Your task to perform on an android device: turn on data saver in the chrome app Image 0: 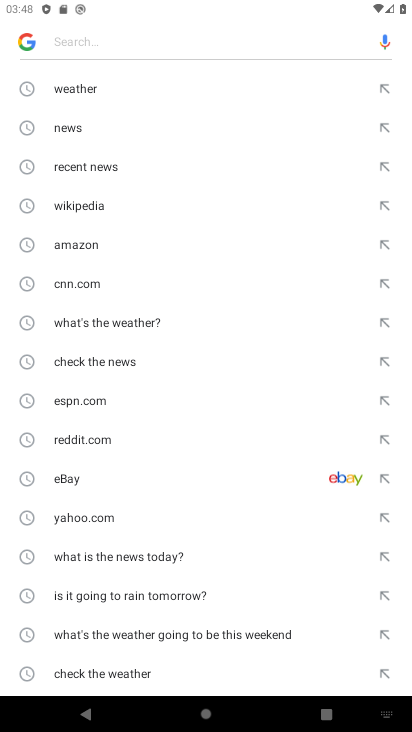
Step 0: press home button
Your task to perform on an android device: turn on data saver in the chrome app Image 1: 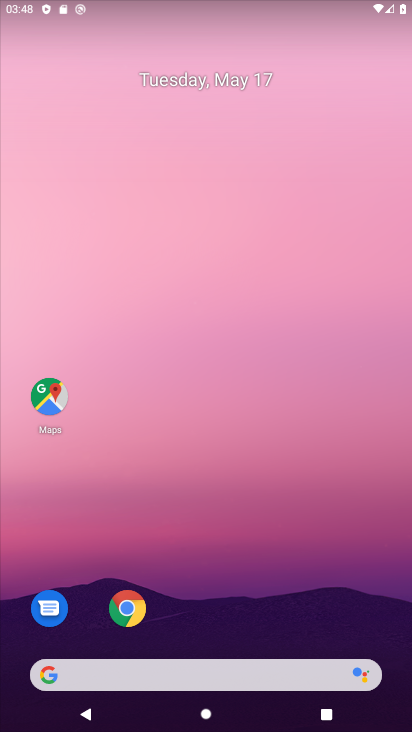
Step 1: click (131, 613)
Your task to perform on an android device: turn on data saver in the chrome app Image 2: 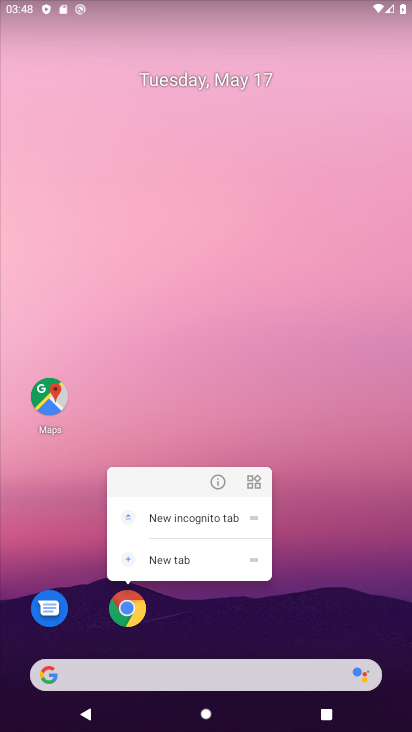
Step 2: click (129, 611)
Your task to perform on an android device: turn on data saver in the chrome app Image 3: 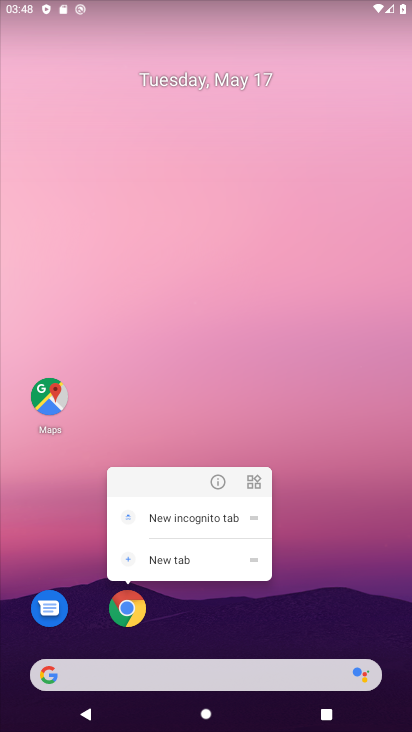
Step 3: click (128, 611)
Your task to perform on an android device: turn on data saver in the chrome app Image 4: 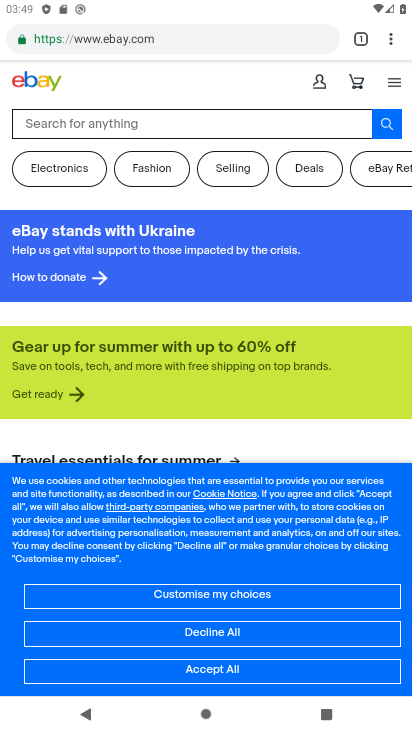
Step 4: click (390, 38)
Your task to perform on an android device: turn on data saver in the chrome app Image 5: 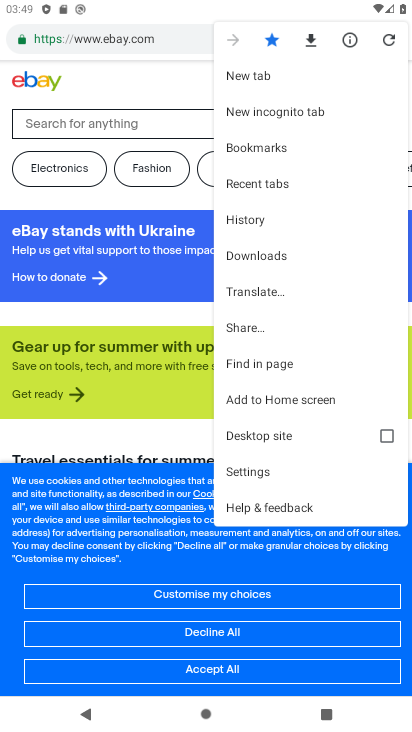
Step 5: click (260, 477)
Your task to perform on an android device: turn on data saver in the chrome app Image 6: 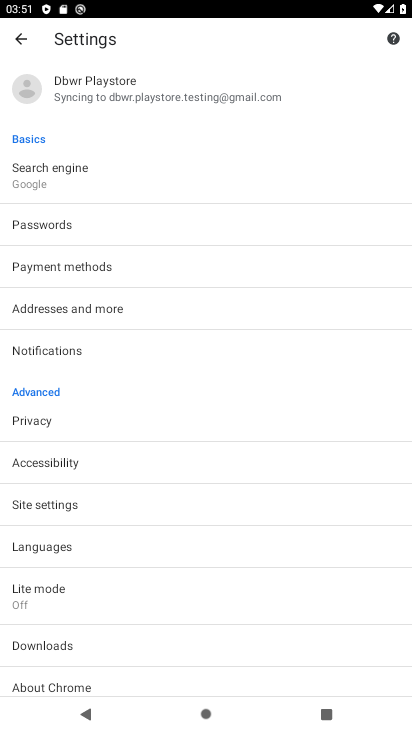
Step 6: click (42, 596)
Your task to perform on an android device: turn on data saver in the chrome app Image 7: 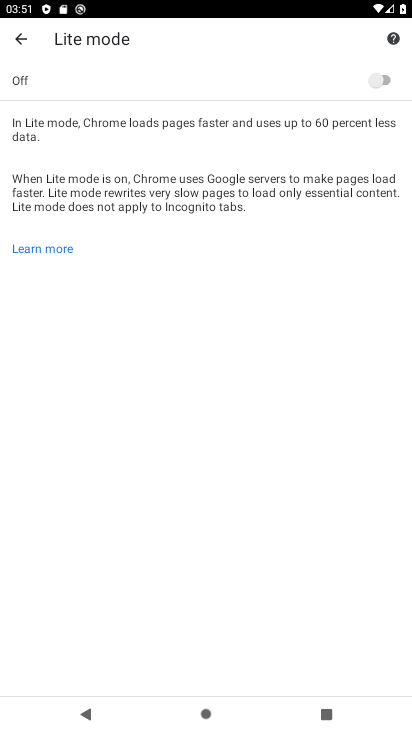
Step 7: click (383, 79)
Your task to perform on an android device: turn on data saver in the chrome app Image 8: 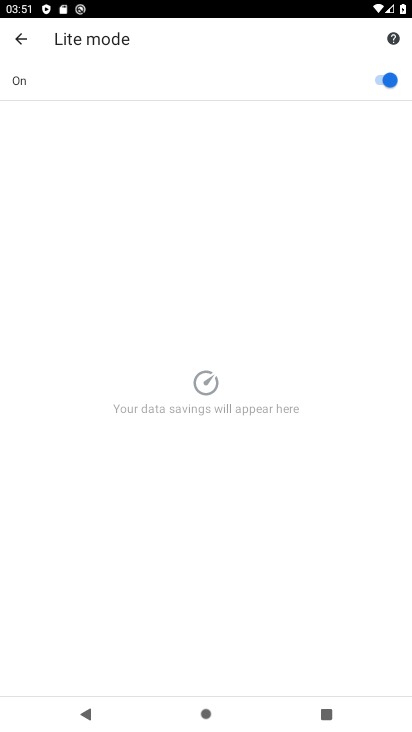
Step 8: task complete